Your task to perform on an android device: Open Youtube and go to "Your channel" Image 0: 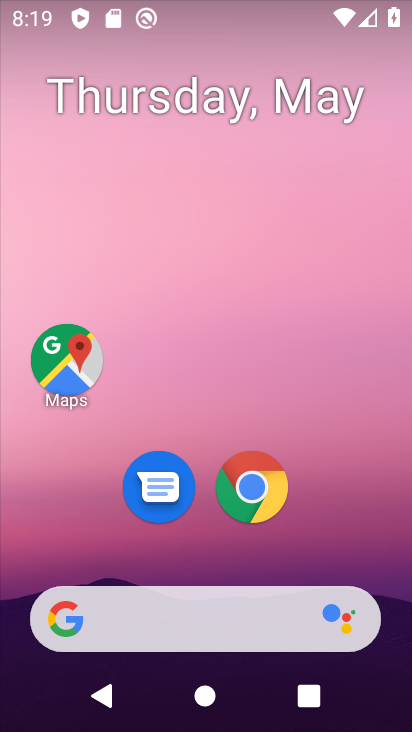
Step 0: drag from (360, 583) to (309, 18)
Your task to perform on an android device: Open Youtube and go to "Your channel" Image 1: 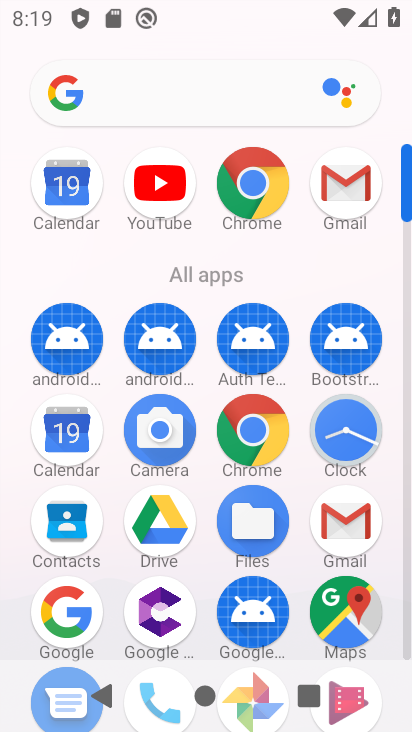
Step 1: drag from (216, 276) to (209, 13)
Your task to perform on an android device: Open Youtube and go to "Your channel" Image 2: 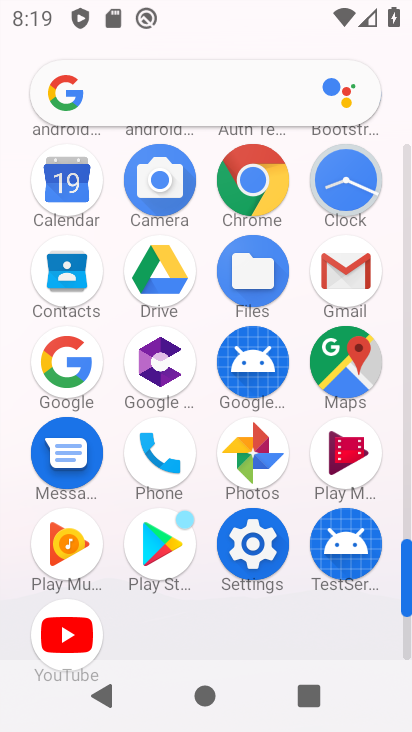
Step 2: click (48, 626)
Your task to perform on an android device: Open Youtube and go to "Your channel" Image 3: 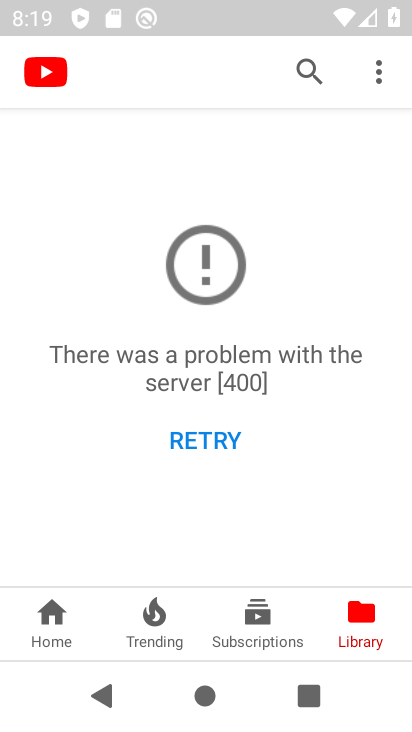
Step 3: click (366, 633)
Your task to perform on an android device: Open Youtube and go to "Your channel" Image 4: 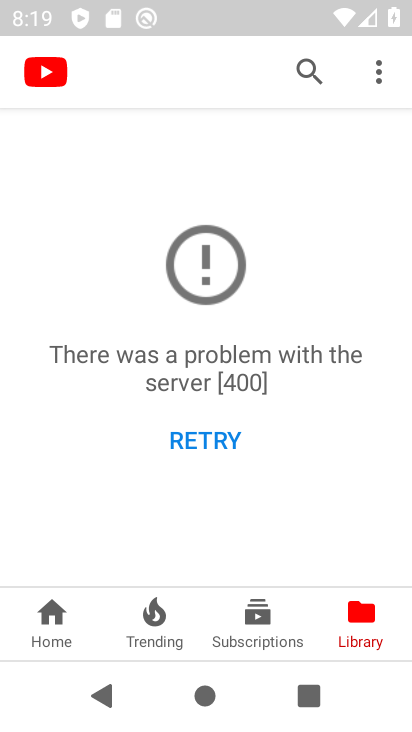
Step 4: task complete